Your task to perform on an android device: What's on my calendar tomorrow? Image 0: 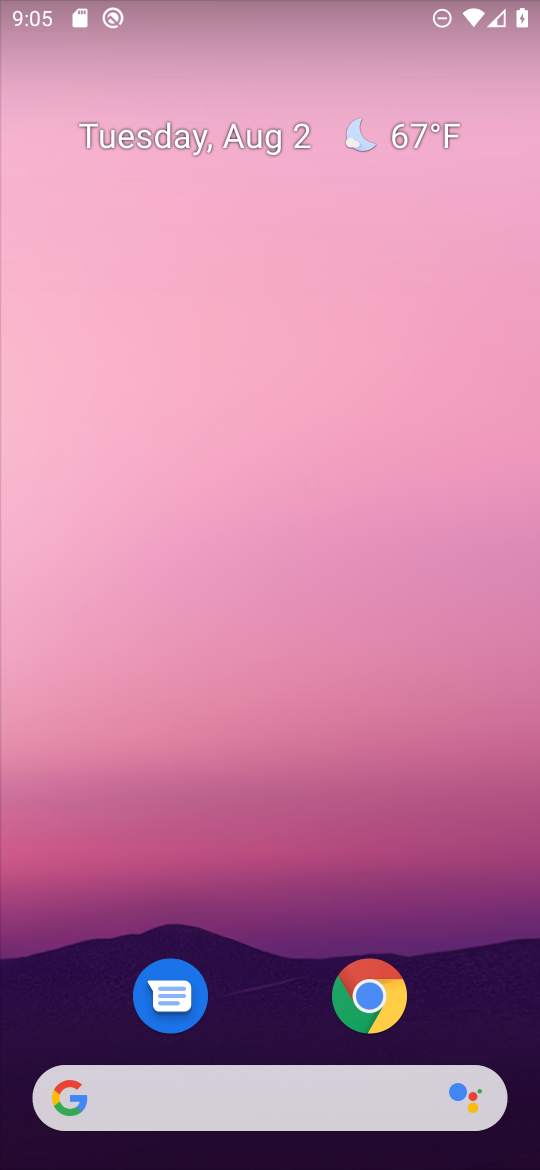
Step 0: drag from (257, 1014) to (297, 100)
Your task to perform on an android device: What's on my calendar tomorrow? Image 1: 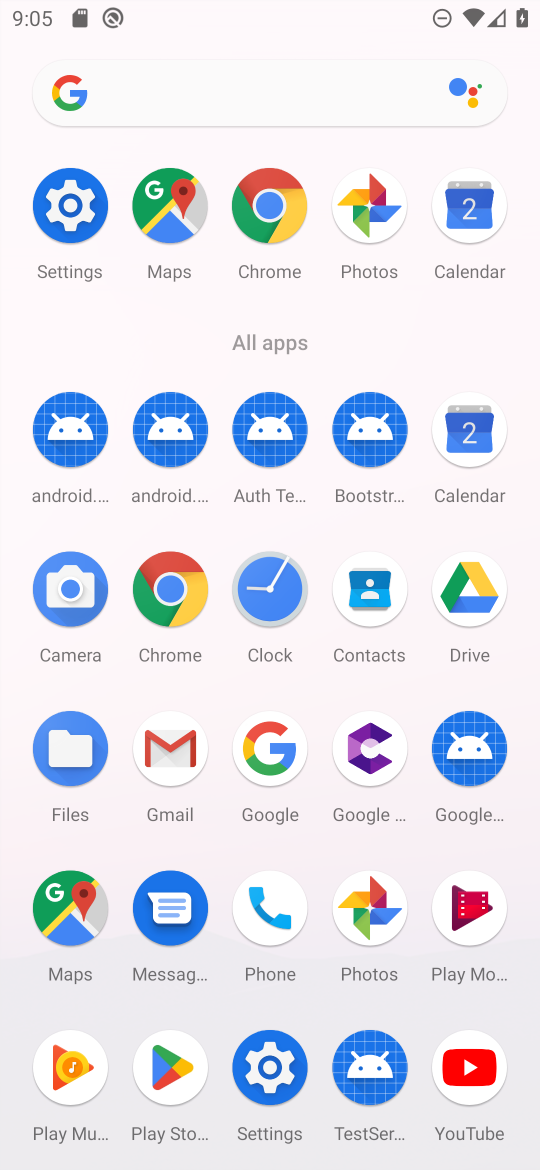
Step 1: click (463, 432)
Your task to perform on an android device: What's on my calendar tomorrow? Image 2: 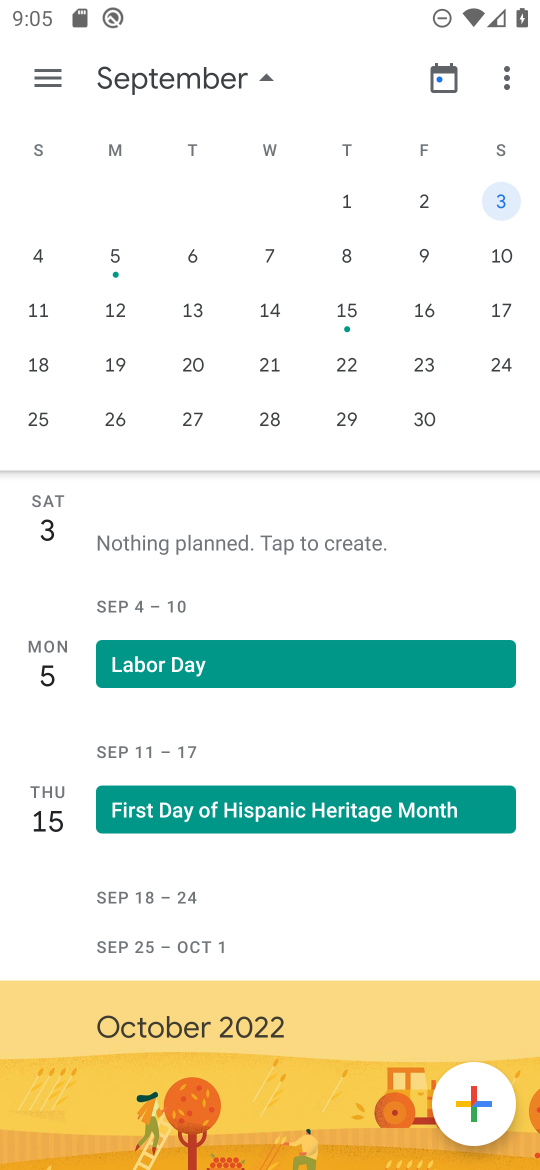
Step 2: click (39, 253)
Your task to perform on an android device: What's on my calendar tomorrow? Image 3: 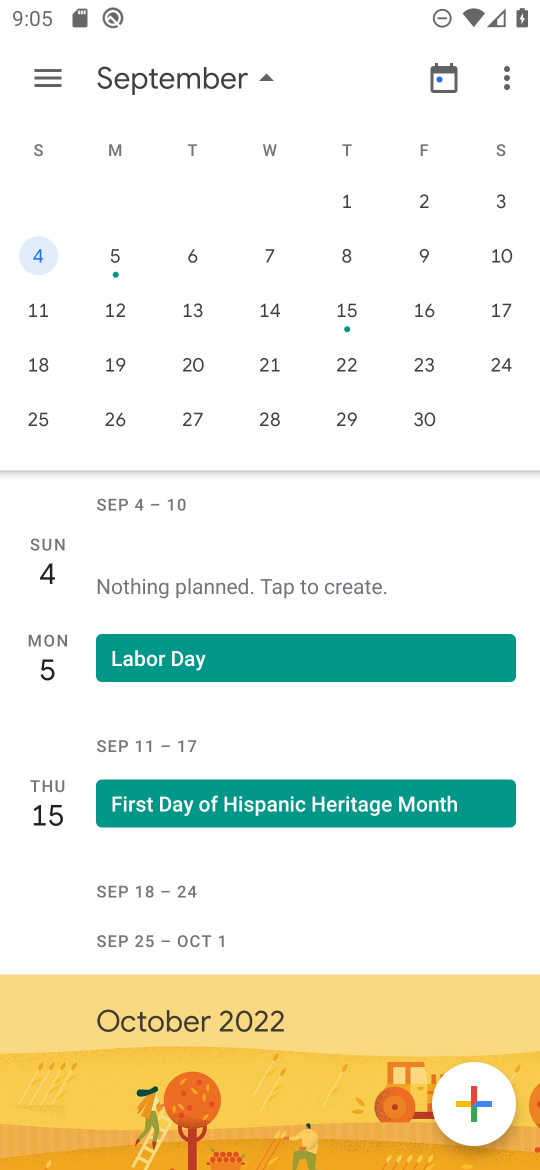
Step 3: task complete